Your task to perform on an android device: open chrome privacy settings Image 0: 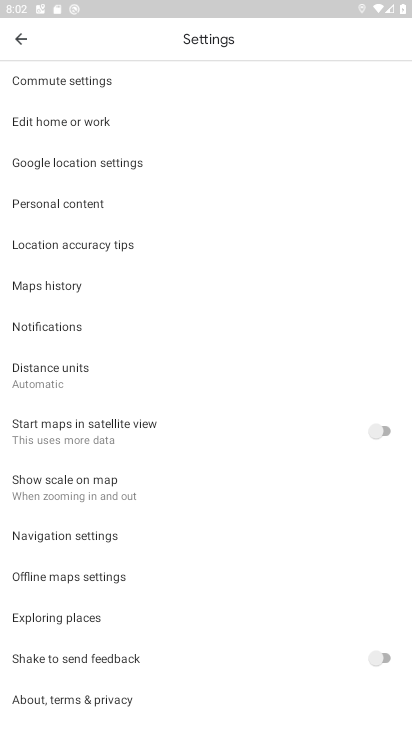
Step 0: press home button
Your task to perform on an android device: open chrome privacy settings Image 1: 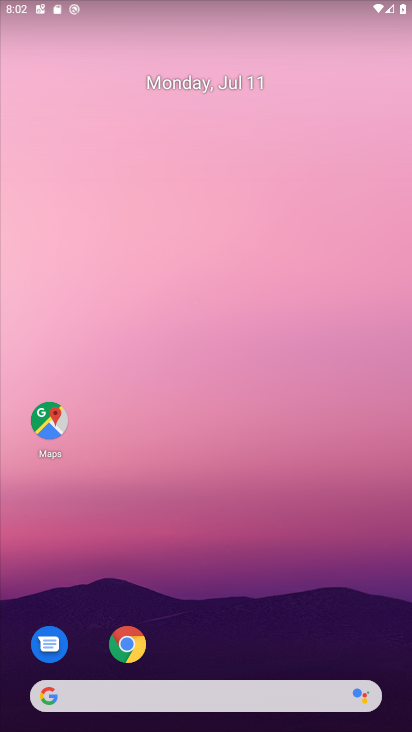
Step 1: drag from (158, 652) to (409, 246)
Your task to perform on an android device: open chrome privacy settings Image 2: 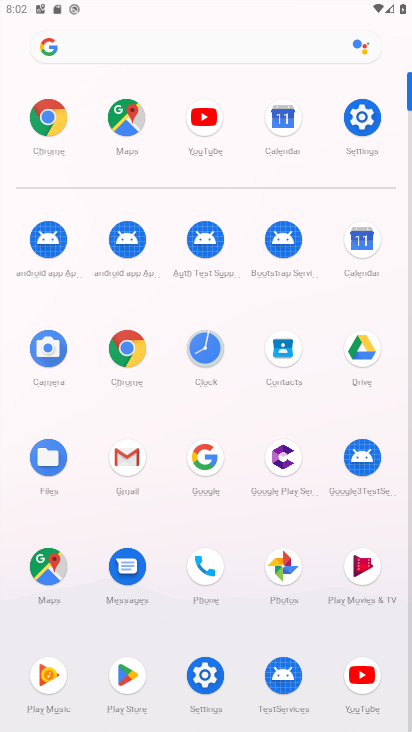
Step 2: click (365, 112)
Your task to perform on an android device: open chrome privacy settings Image 3: 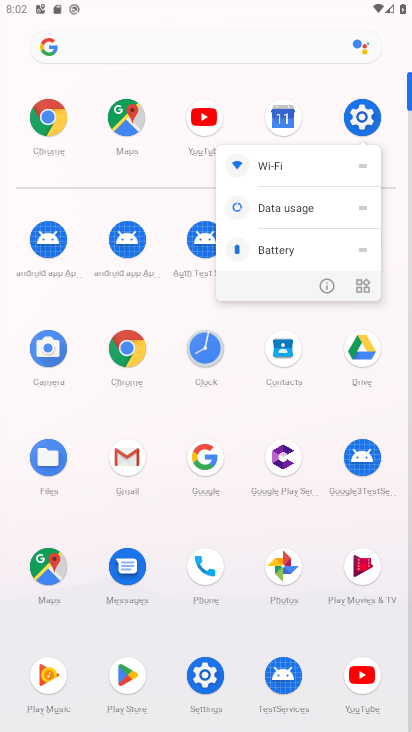
Step 3: click (364, 108)
Your task to perform on an android device: open chrome privacy settings Image 4: 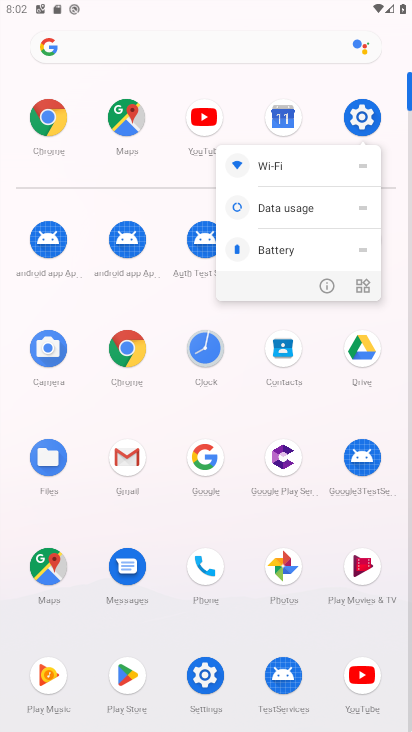
Step 4: click (364, 108)
Your task to perform on an android device: open chrome privacy settings Image 5: 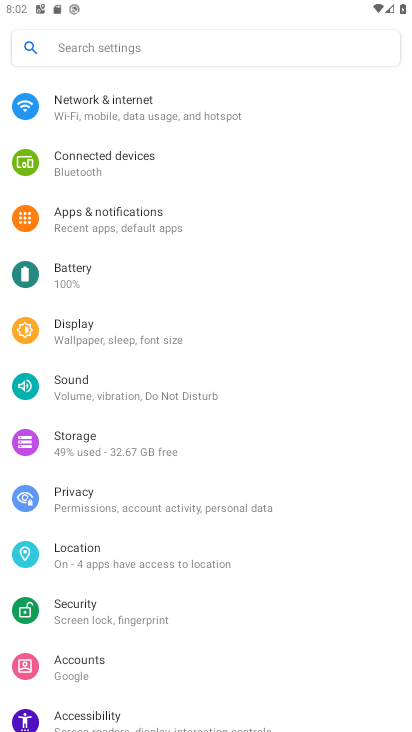
Step 5: click (364, 108)
Your task to perform on an android device: open chrome privacy settings Image 6: 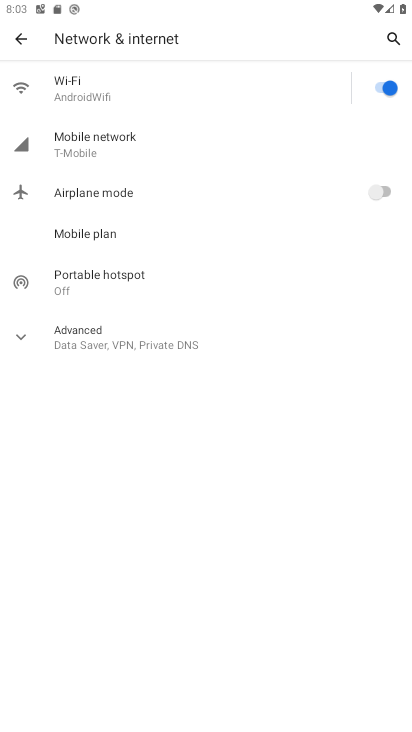
Step 6: press home button
Your task to perform on an android device: open chrome privacy settings Image 7: 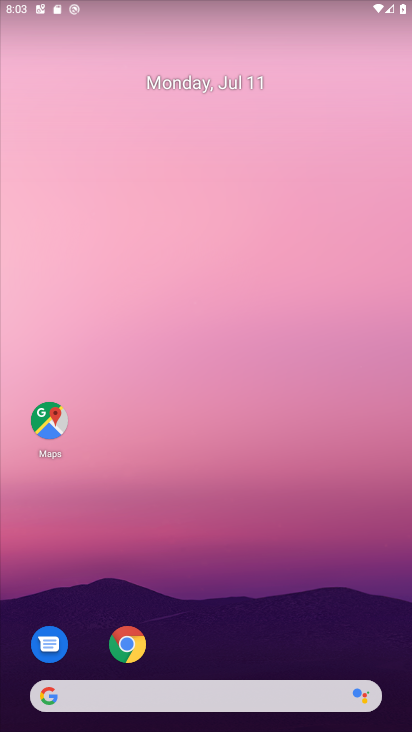
Step 7: click (125, 638)
Your task to perform on an android device: open chrome privacy settings Image 8: 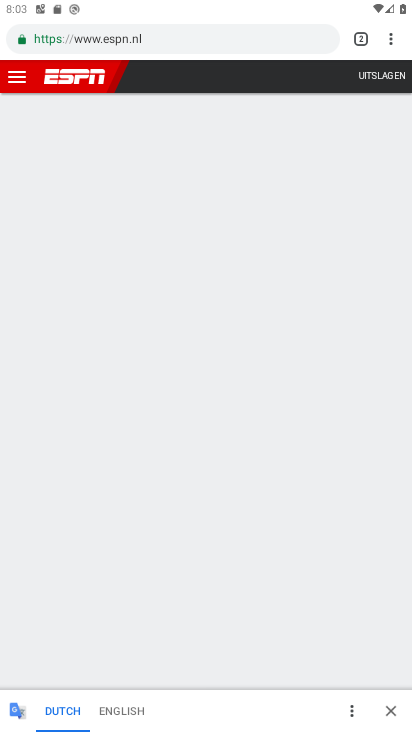
Step 8: click (393, 24)
Your task to perform on an android device: open chrome privacy settings Image 9: 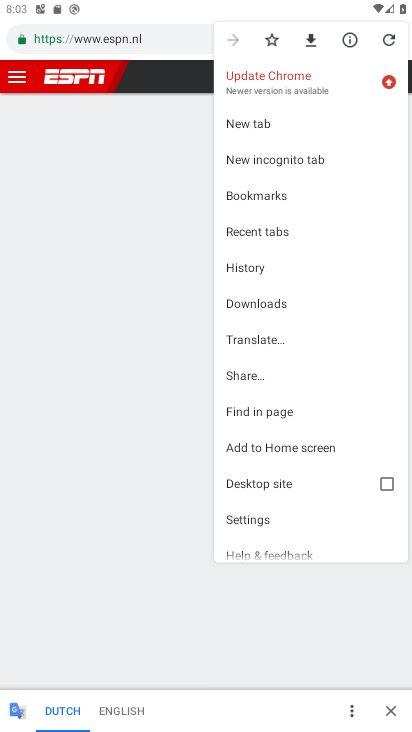
Step 9: click (238, 523)
Your task to perform on an android device: open chrome privacy settings Image 10: 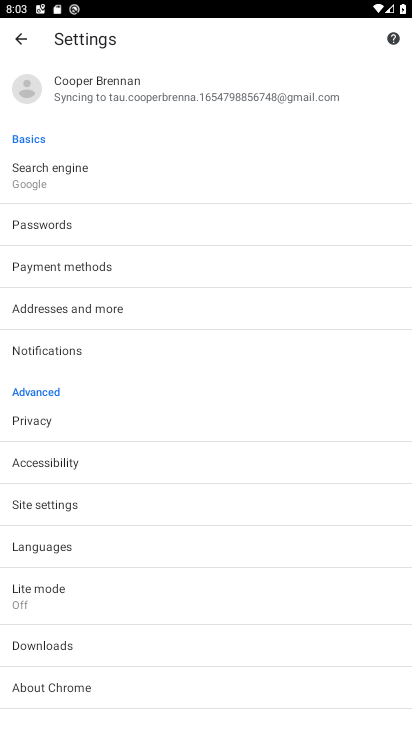
Step 10: click (40, 423)
Your task to perform on an android device: open chrome privacy settings Image 11: 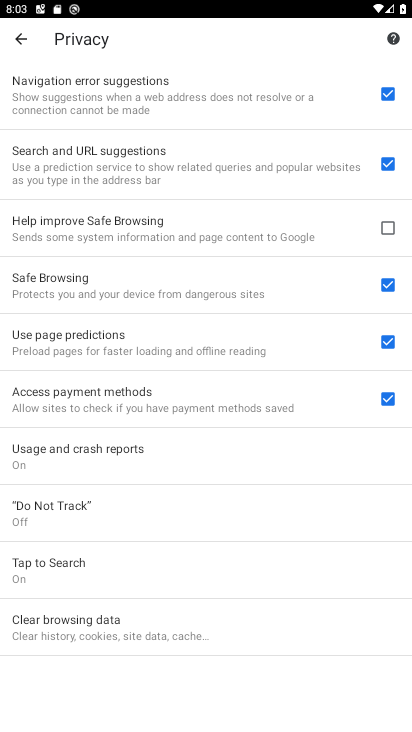
Step 11: task complete